Your task to perform on an android device: Open Google Chrome and click the shortcut for Amazon.com Image 0: 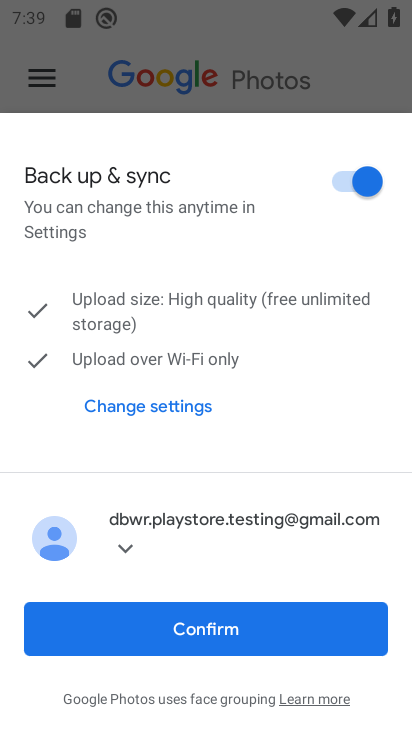
Step 0: press home button
Your task to perform on an android device: Open Google Chrome and click the shortcut for Amazon.com Image 1: 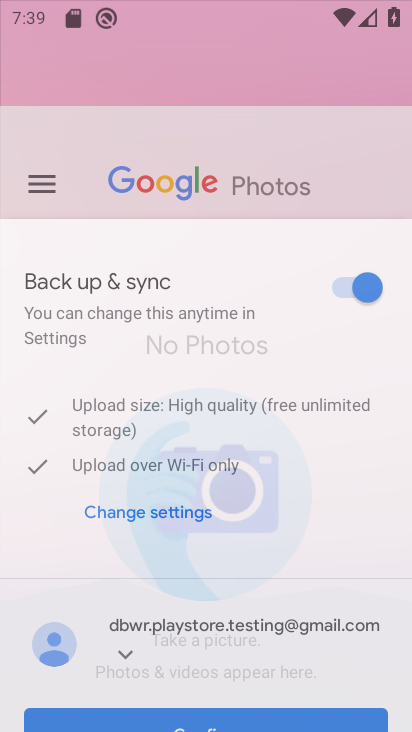
Step 1: press home button
Your task to perform on an android device: Open Google Chrome and click the shortcut for Amazon.com Image 2: 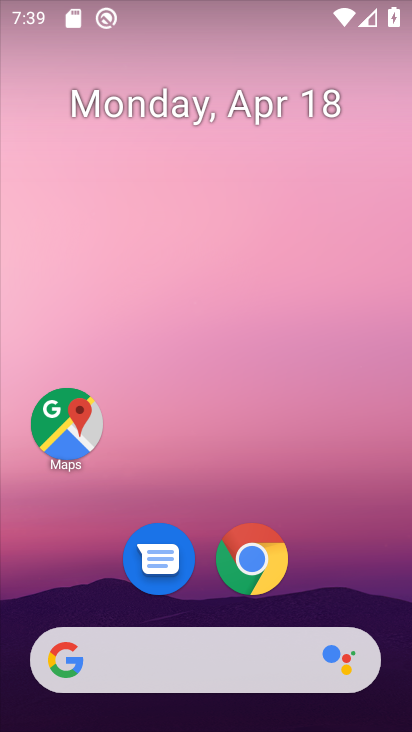
Step 2: click (276, 552)
Your task to perform on an android device: Open Google Chrome and click the shortcut for Amazon.com Image 3: 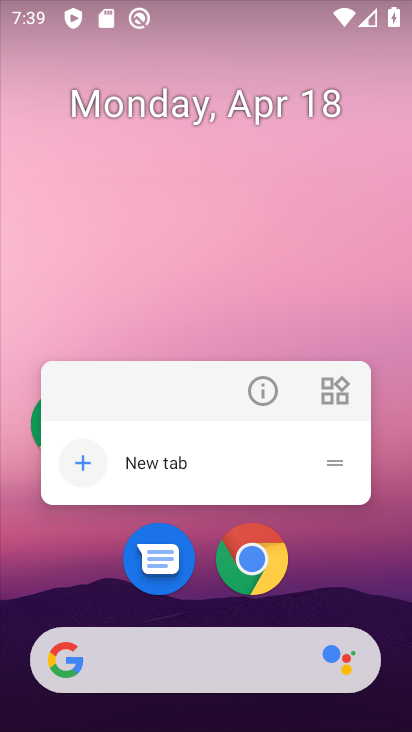
Step 3: click (255, 563)
Your task to perform on an android device: Open Google Chrome and click the shortcut for Amazon.com Image 4: 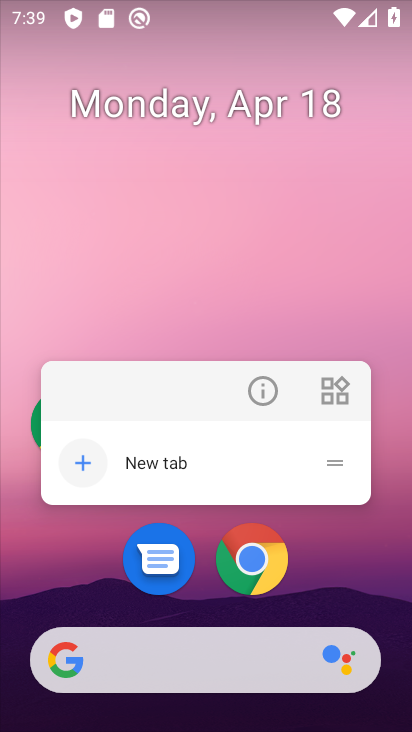
Step 4: click (258, 579)
Your task to perform on an android device: Open Google Chrome and click the shortcut for Amazon.com Image 5: 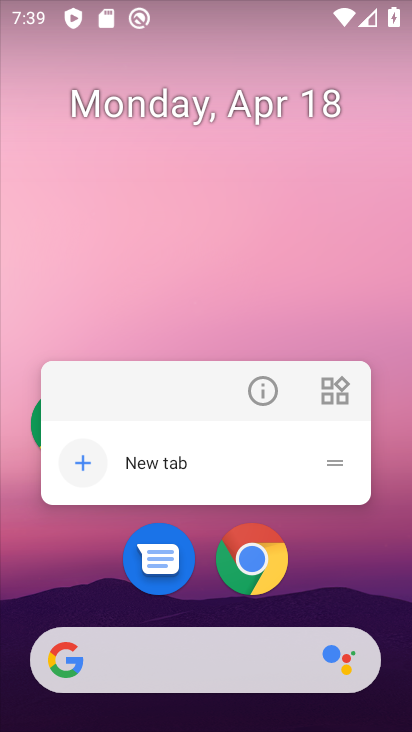
Step 5: click (185, 217)
Your task to perform on an android device: Open Google Chrome and click the shortcut for Amazon.com Image 6: 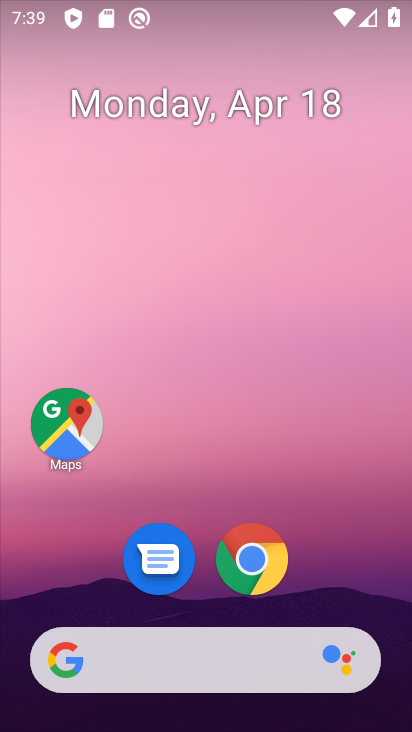
Step 6: click (236, 563)
Your task to perform on an android device: Open Google Chrome and click the shortcut for Amazon.com Image 7: 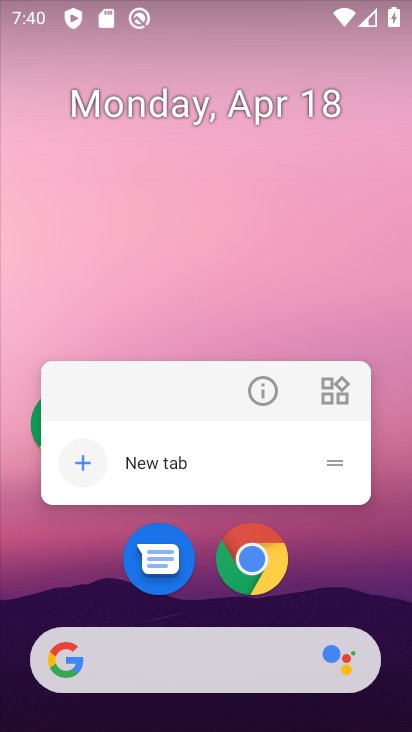
Step 7: click (249, 568)
Your task to perform on an android device: Open Google Chrome and click the shortcut for Amazon.com Image 8: 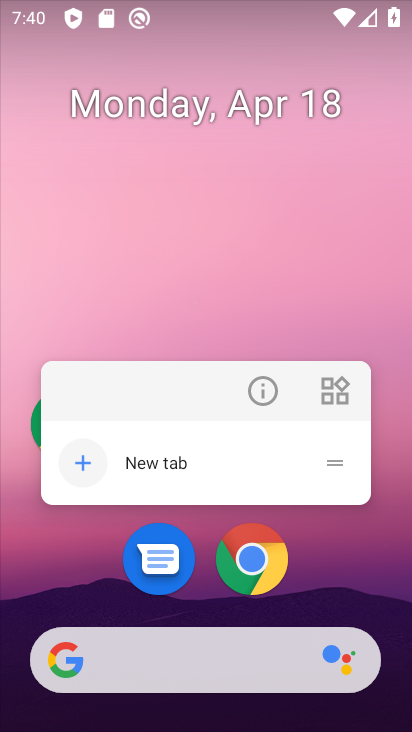
Step 8: click (144, 203)
Your task to perform on an android device: Open Google Chrome and click the shortcut for Amazon.com Image 9: 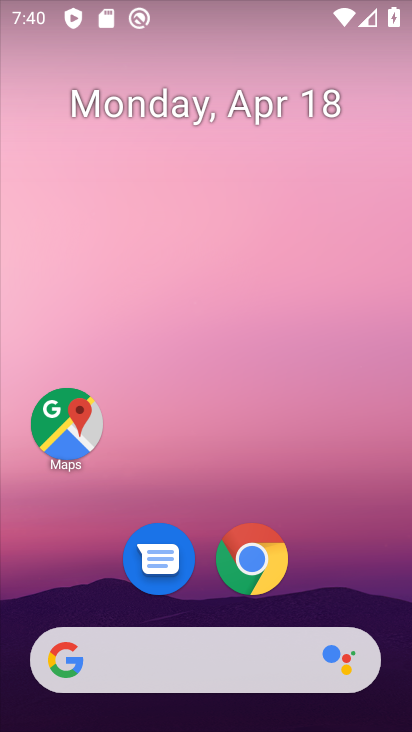
Step 9: drag from (168, 166) to (238, 11)
Your task to perform on an android device: Open Google Chrome and click the shortcut for Amazon.com Image 10: 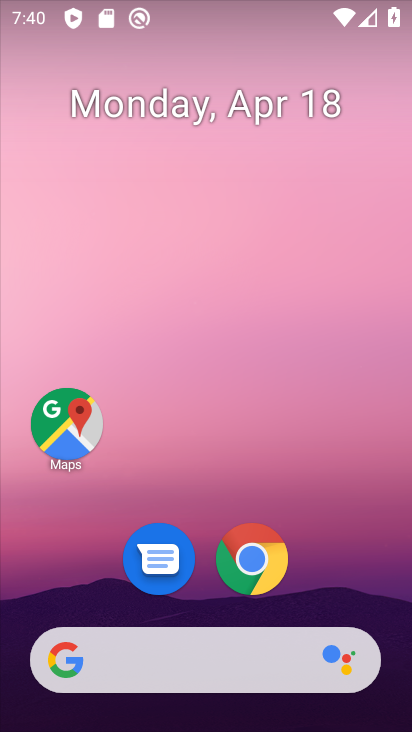
Step 10: click (240, 570)
Your task to perform on an android device: Open Google Chrome and click the shortcut for Amazon.com Image 11: 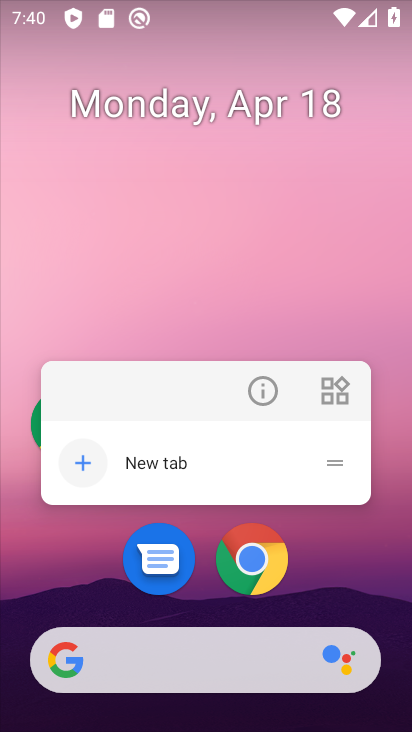
Step 11: click (240, 570)
Your task to perform on an android device: Open Google Chrome and click the shortcut for Amazon.com Image 12: 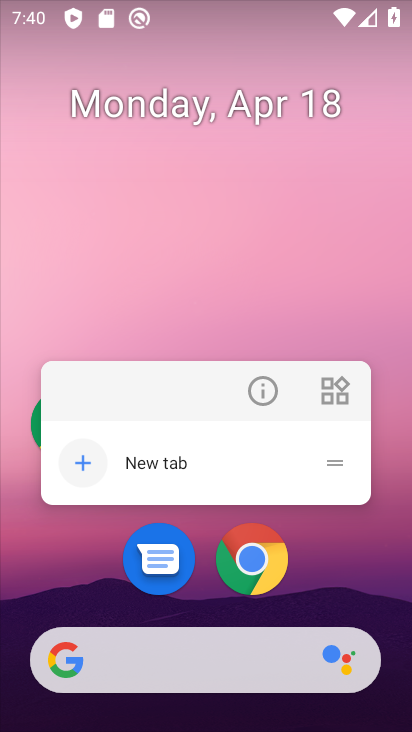
Step 12: click (249, 571)
Your task to perform on an android device: Open Google Chrome and click the shortcut for Amazon.com Image 13: 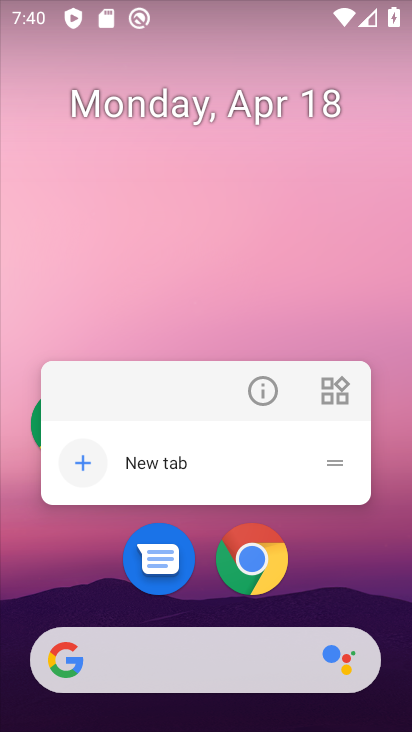
Step 13: click (249, 571)
Your task to perform on an android device: Open Google Chrome and click the shortcut for Amazon.com Image 14: 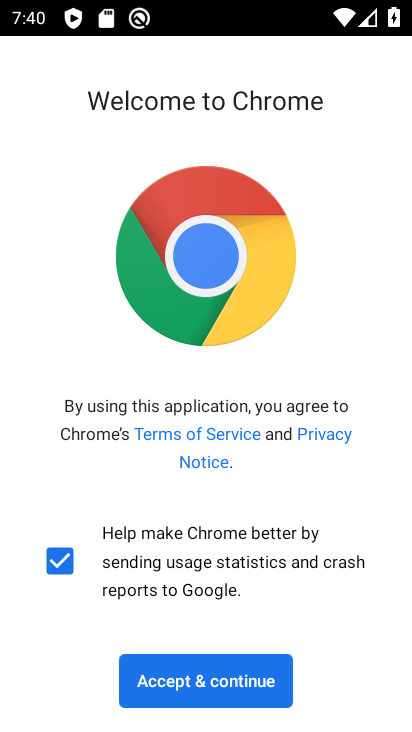
Step 14: click (244, 675)
Your task to perform on an android device: Open Google Chrome and click the shortcut for Amazon.com Image 15: 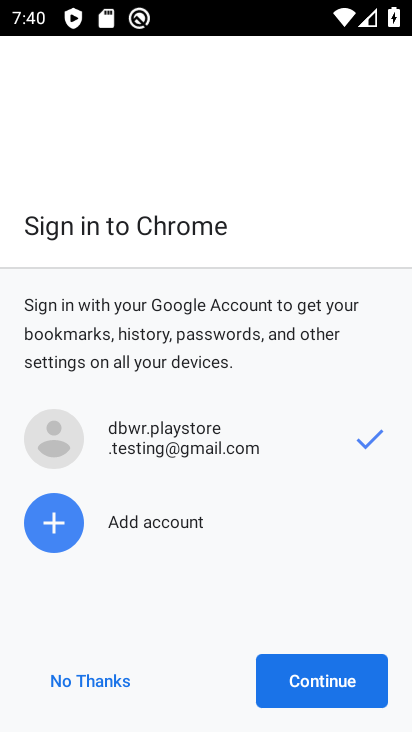
Step 15: click (296, 680)
Your task to perform on an android device: Open Google Chrome and click the shortcut for Amazon.com Image 16: 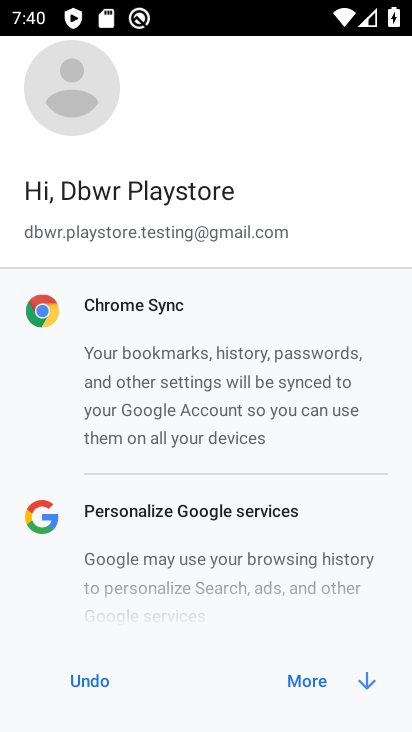
Step 16: click (296, 680)
Your task to perform on an android device: Open Google Chrome and click the shortcut for Amazon.com Image 17: 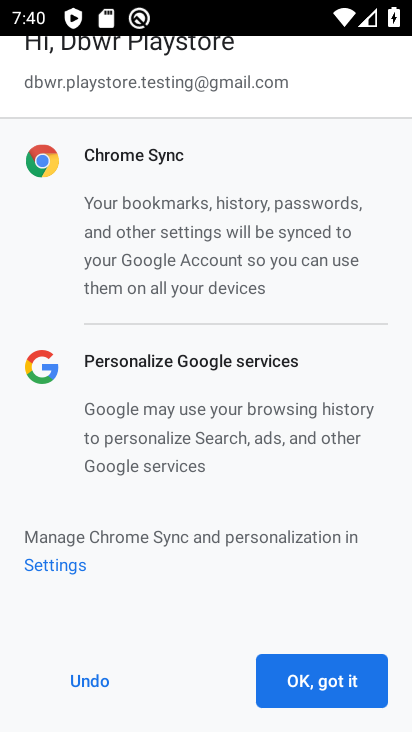
Step 17: click (296, 680)
Your task to perform on an android device: Open Google Chrome and click the shortcut for Amazon.com Image 18: 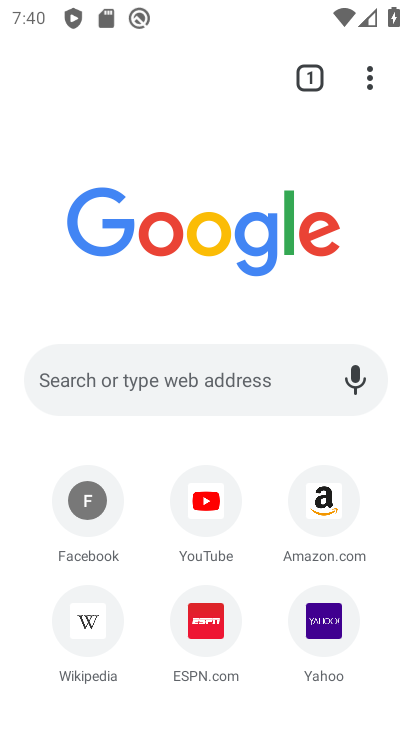
Step 18: click (332, 517)
Your task to perform on an android device: Open Google Chrome and click the shortcut for Amazon.com Image 19: 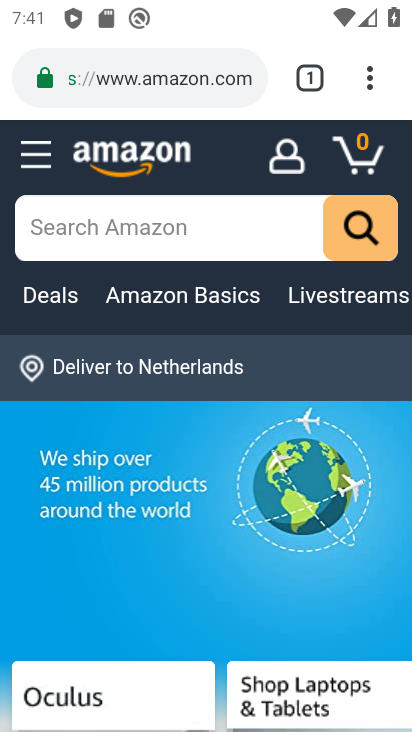
Step 19: task complete